Your task to perform on an android device: open chrome privacy settings Image 0: 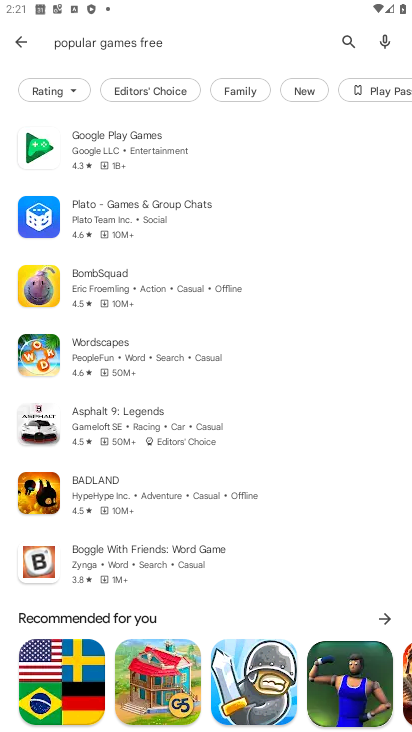
Step 0: press home button
Your task to perform on an android device: open chrome privacy settings Image 1: 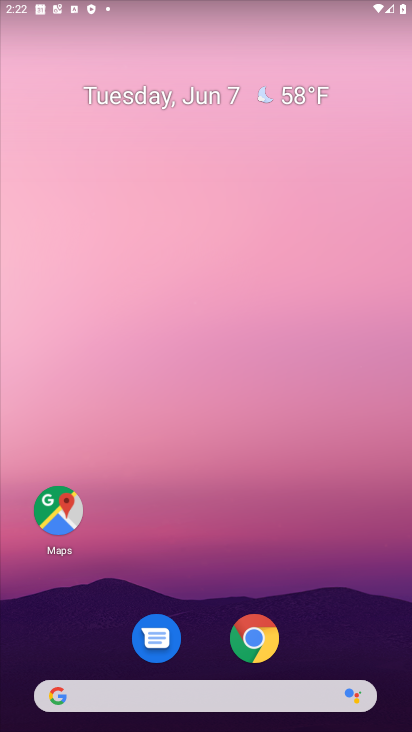
Step 1: drag from (182, 638) to (191, 253)
Your task to perform on an android device: open chrome privacy settings Image 2: 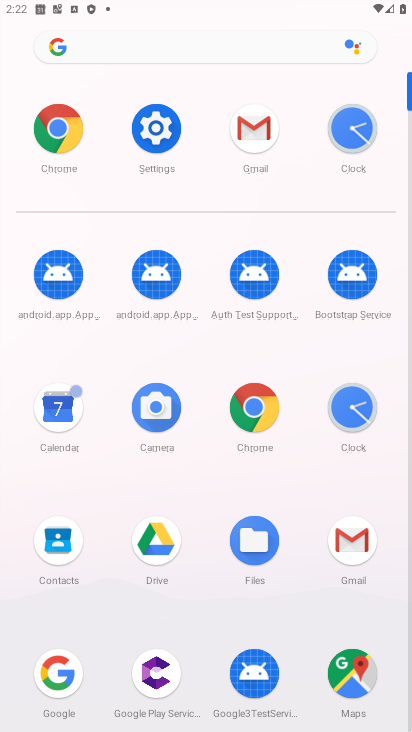
Step 2: click (51, 120)
Your task to perform on an android device: open chrome privacy settings Image 3: 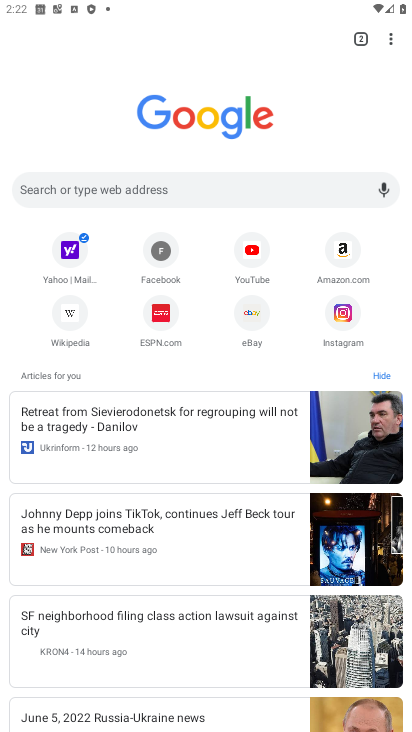
Step 3: click (389, 37)
Your task to perform on an android device: open chrome privacy settings Image 4: 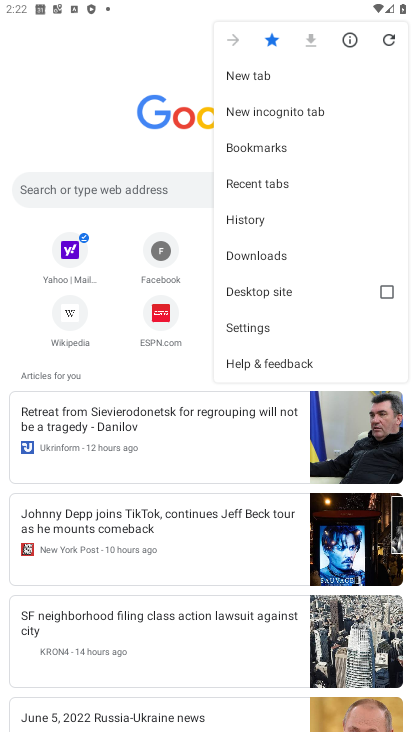
Step 4: click (256, 319)
Your task to perform on an android device: open chrome privacy settings Image 5: 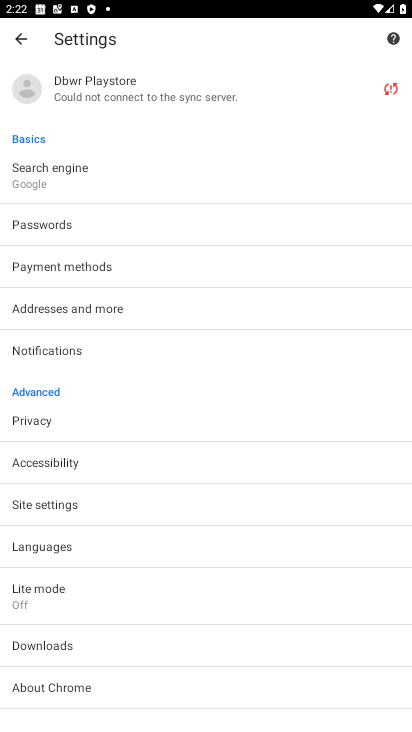
Step 5: click (7, 418)
Your task to perform on an android device: open chrome privacy settings Image 6: 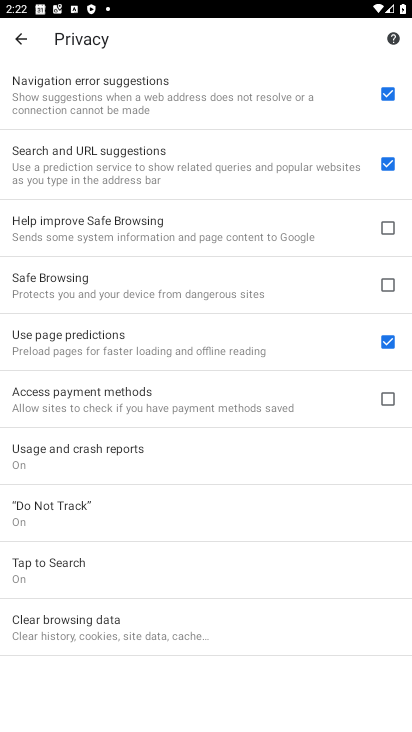
Step 6: task complete